Your task to perform on an android device: turn on improve location accuracy Image 0: 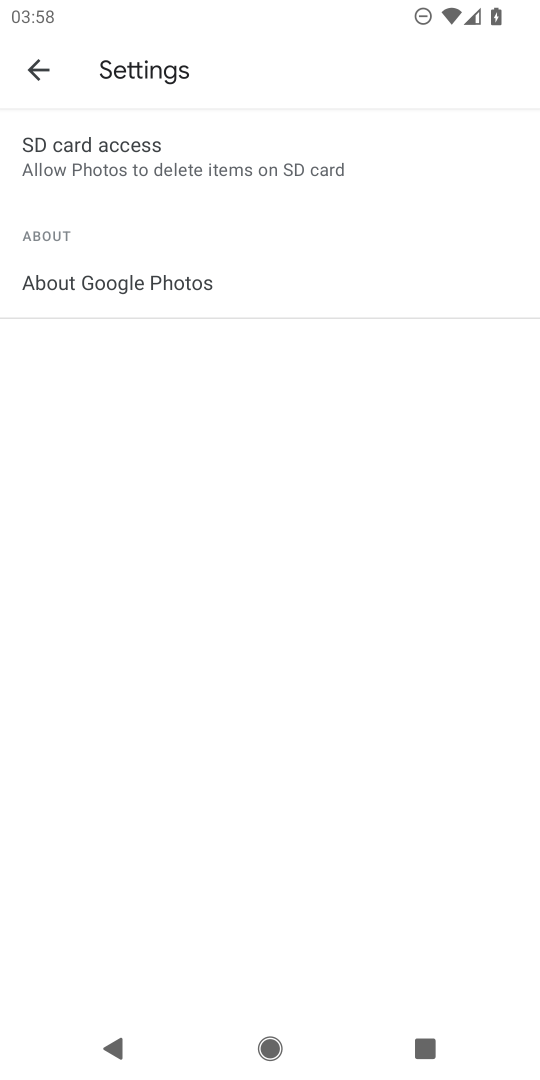
Step 0: press home button
Your task to perform on an android device: turn on improve location accuracy Image 1: 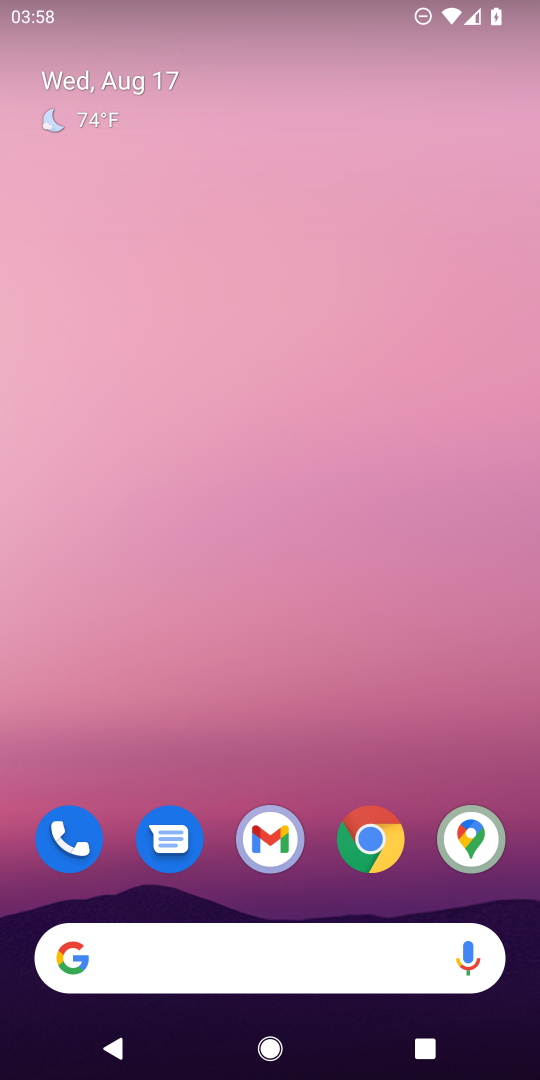
Step 1: drag from (338, 831) to (361, 87)
Your task to perform on an android device: turn on improve location accuracy Image 2: 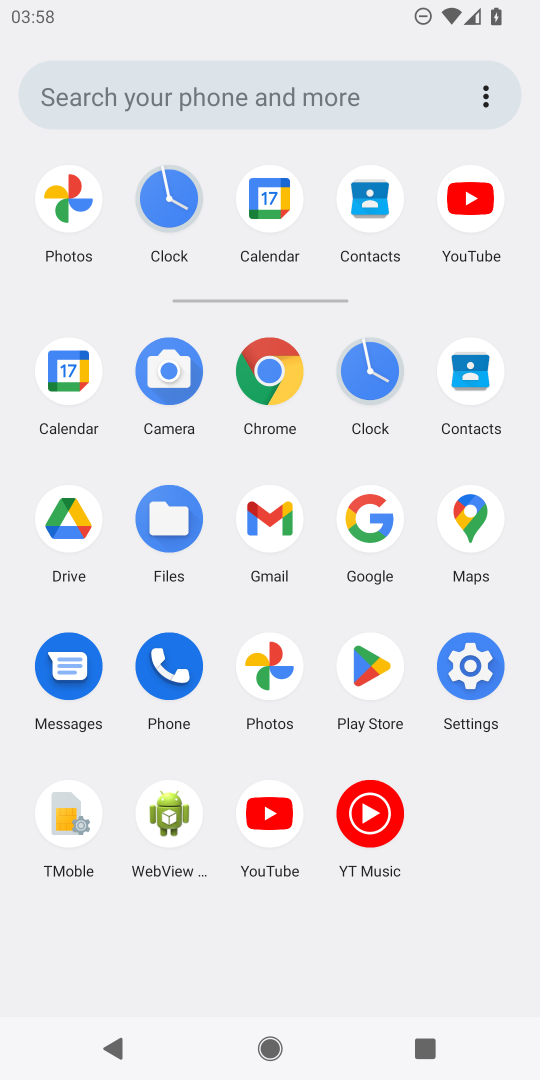
Step 2: click (471, 674)
Your task to perform on an android device: turn on improve location accuracy Image 3: 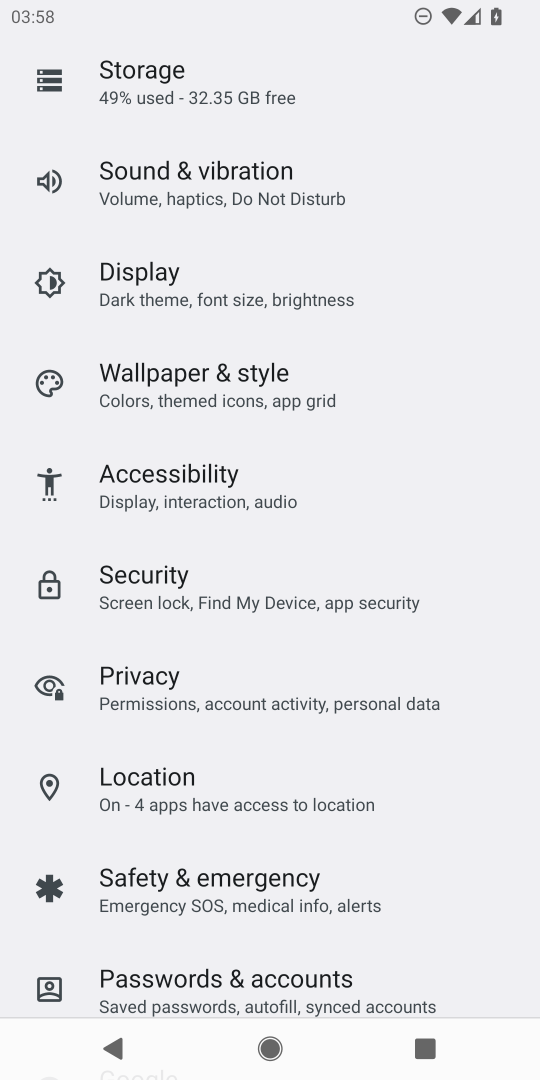
Step 3: click (158, 782)
Your task to perform on an android device: turn on improve location accuracy Image 4: 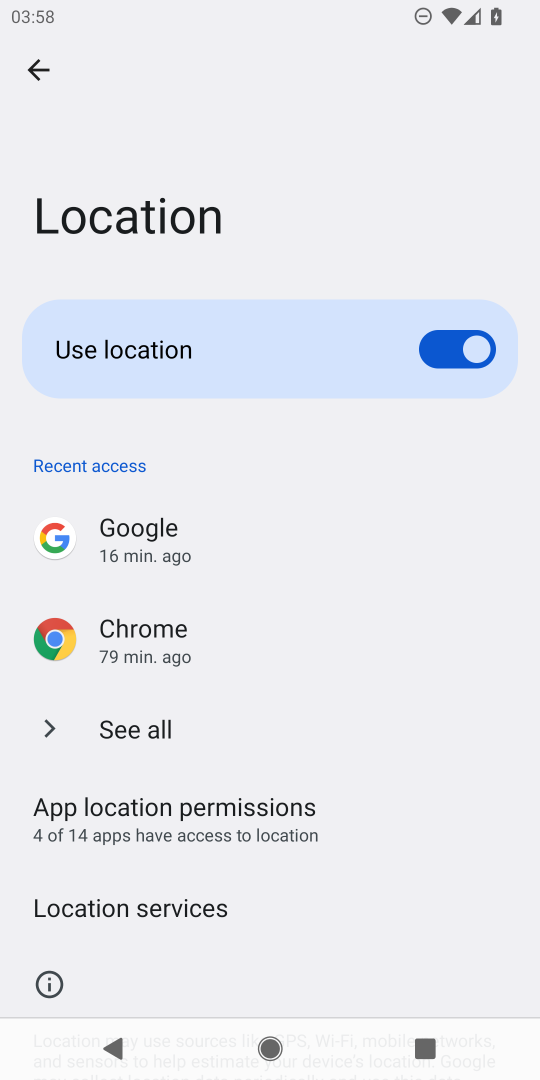
Step 4: click (177, 911)
Your task to perform on an android device: turn on improve location accuracy Image 5: 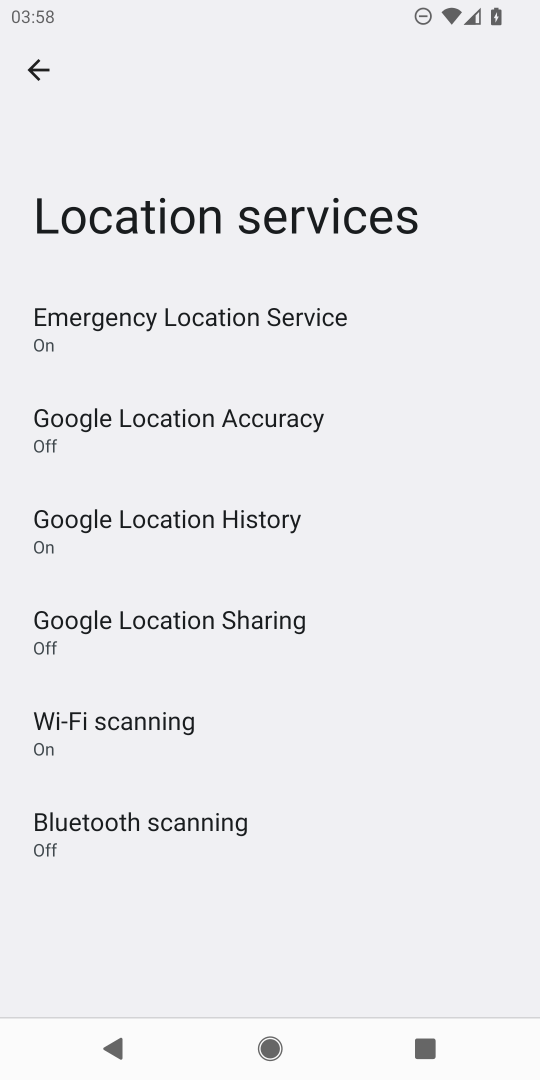
Step 5: click (261, 412)
Your task to perform on an android device: turn on improve location accuracy Image 6: 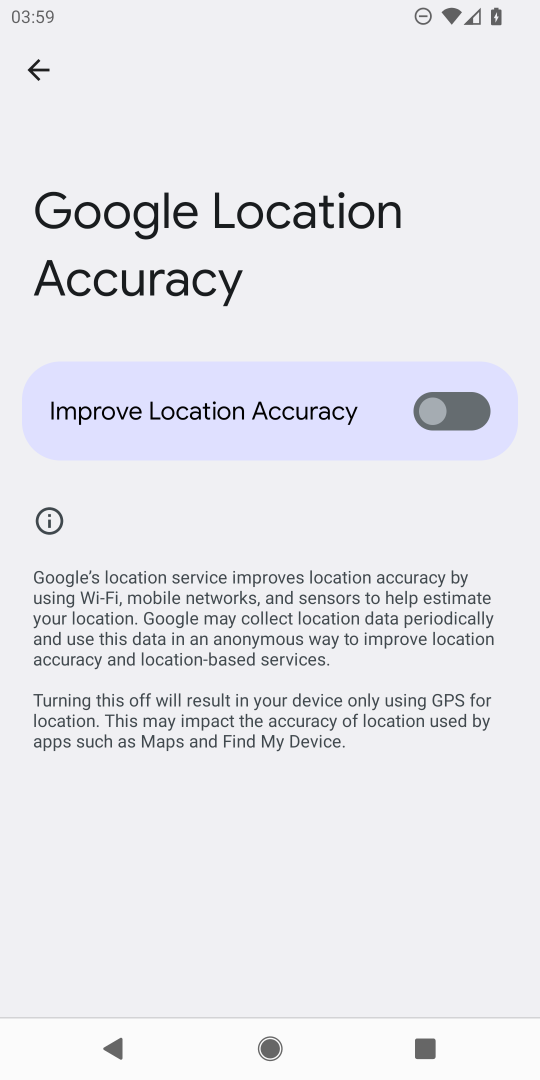
Step 6: click (450, 406)
Your task to perform on an android device: turn on improve location accuracy Image 7: 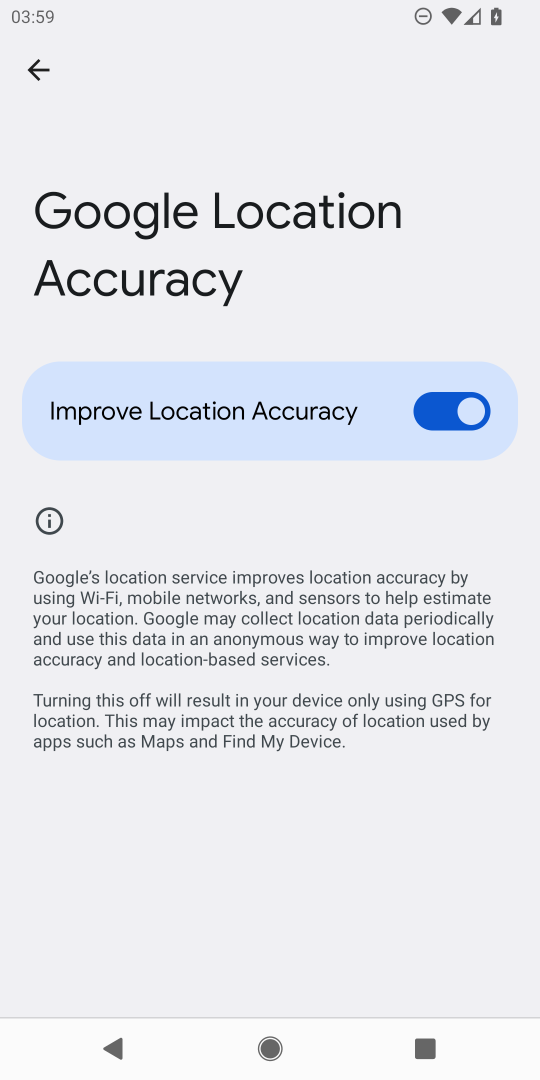
Step 7: task complete